Your task to perform on an android device: toggle show notifications on the lock screen Image 0: 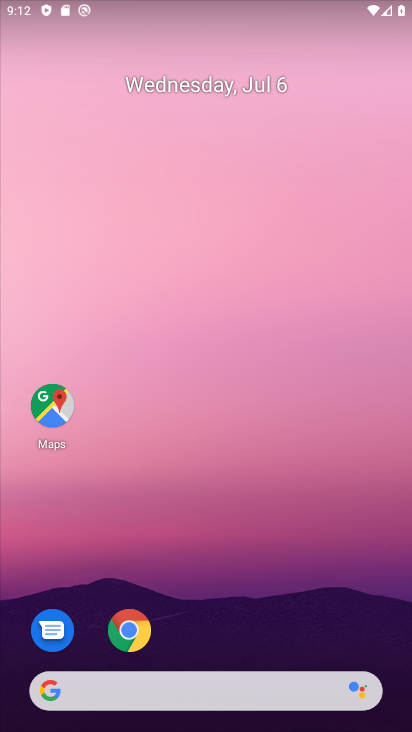
Step 0: drag from (221, 670) to (230, 107)
Your task to perform on an android device: toggle show notifications on the lock screen Image 1: 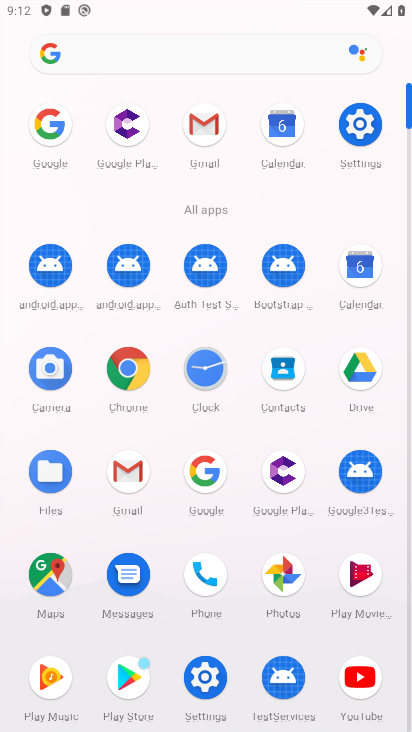
Step 1: click (360, 124)
Your task to perform on an android device: toggle show notifications on the lock screen Image 2: 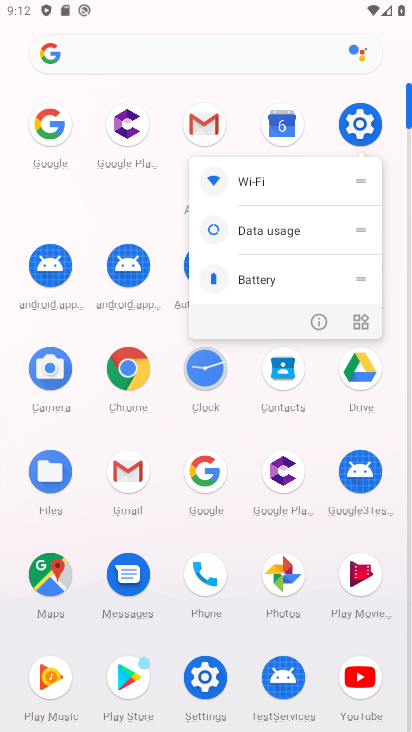
Step 2: click (359, 130)
Your task to perform on an android device: toggle show notifications on the lock screen Image 3: 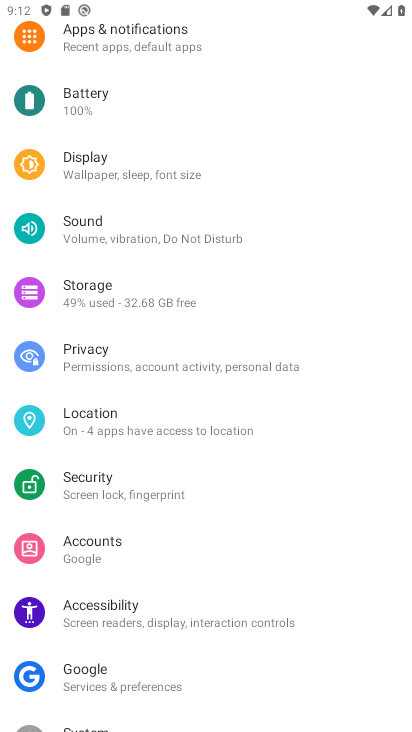
Step 3: click (98, 354)
Your task to perform on an android device: toggle show notifications on the lock screen Image 4: 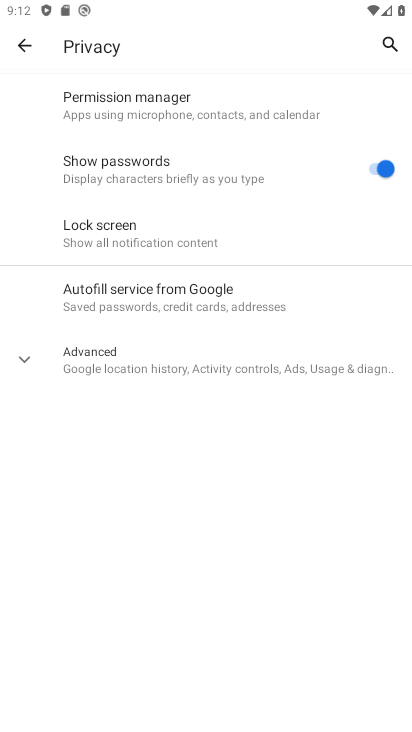
Step 4: click (98, 236)
Your task to perform on an android device: toggle show notifications on the lock screen Image 5: 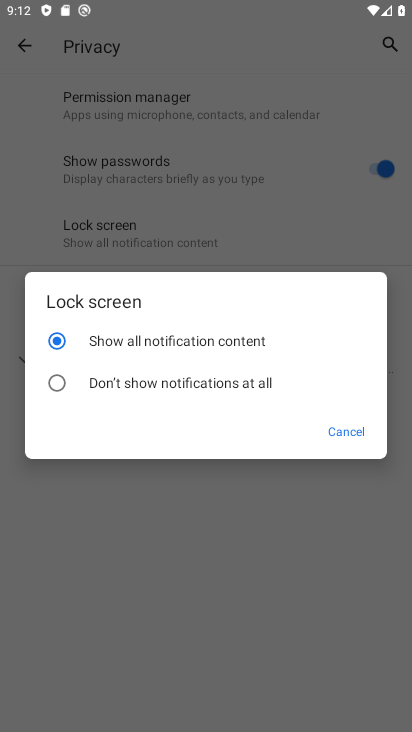
Step 5: click (143, 382)
Your task to perform on an android device: toggle show notifications on the lock screen Image 6: 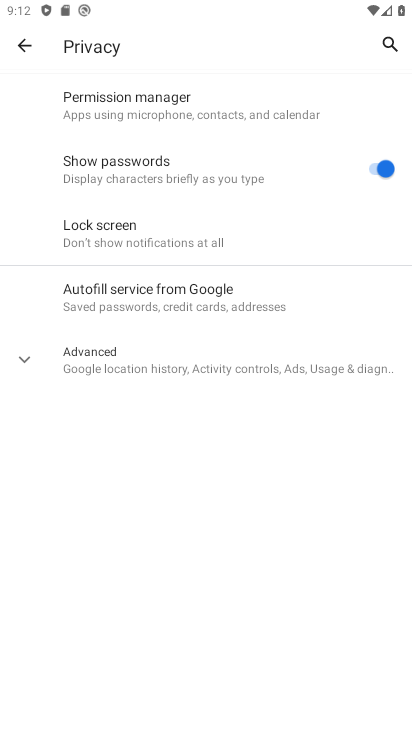
Step 6: task complete